Your task to perform on an android device: Open calendar and show me the third week of next month Image 0: 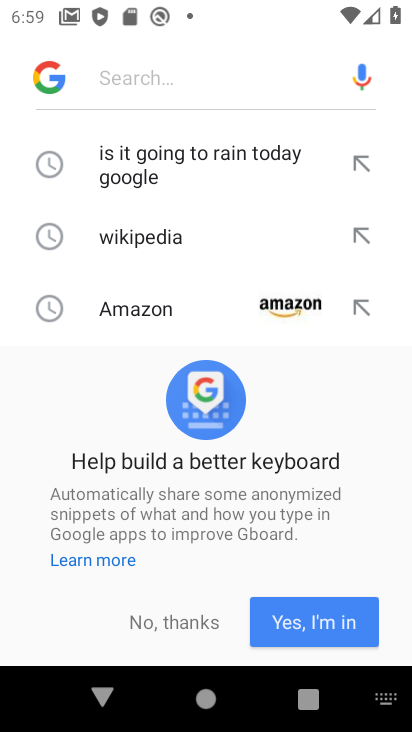
Step 0: press home button
Your task to perform on an android device: Open calendar and show me the third week of next month Image 1: 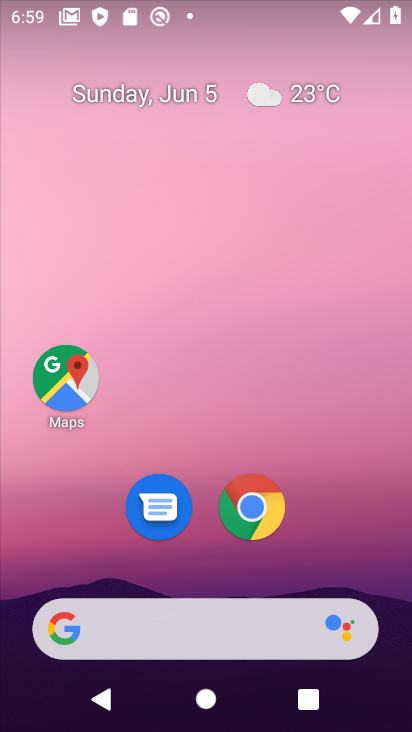
Step 1: drag from (216, 624) to (192, 3)
Your task to perform on an android device: Open calendar and show me the third week of next month Image 2: 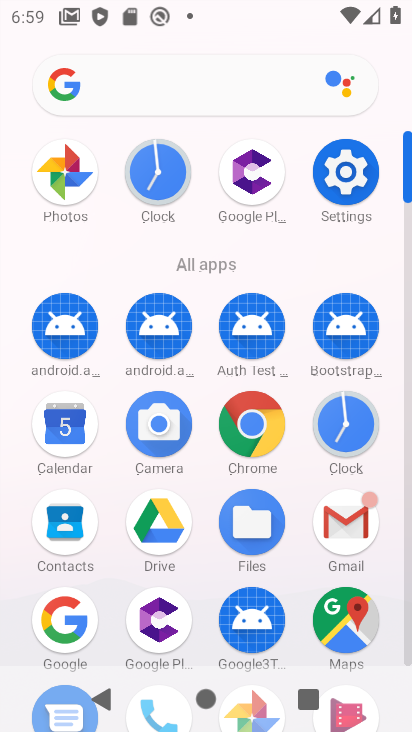
Step 2: click (78, 438)
Your task to perform on an android device: Open calendar and show me the third week of next month Image 3: 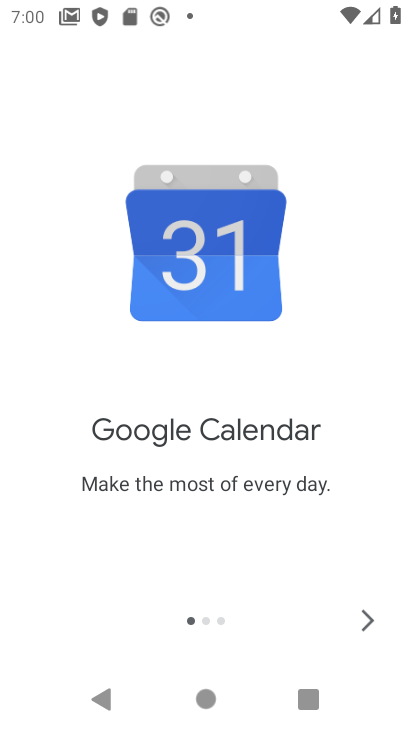
Step 3: click (368, 624)
Your task to perform on an android device: Open calendar and show me the third week of next month Image 4: 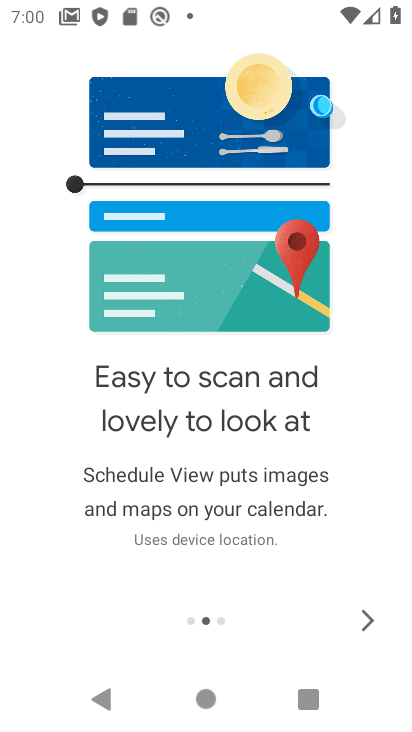
Step 4: click (362, 612)
Your task to perform on an android device: Open calendar and show me the third week of next month Image 5: 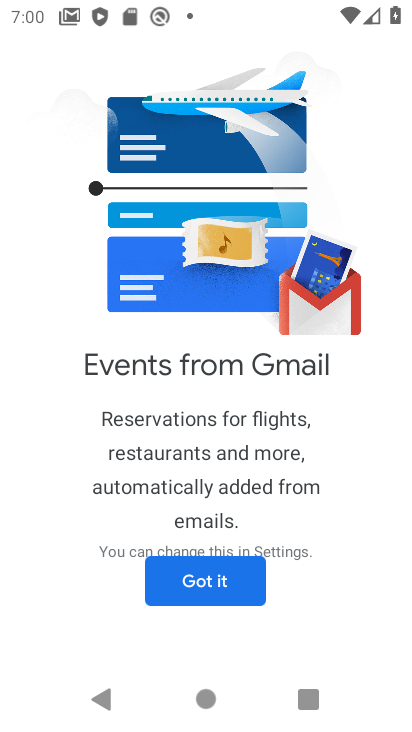
Step 5: click (236, 590)
Your task to perform on an android device: Open calendar and show me the third week of next month Image 6: 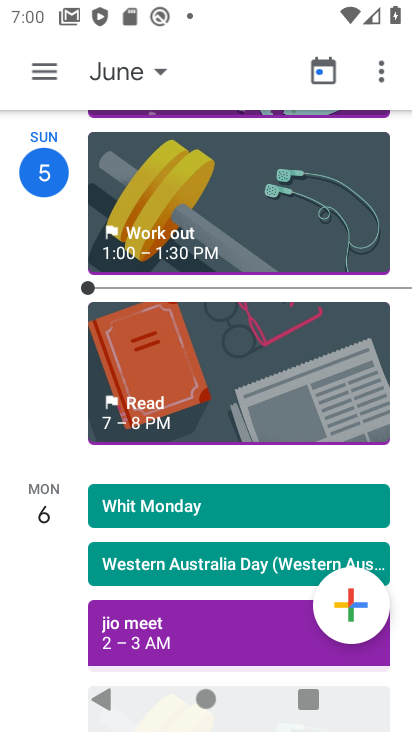
Step 6: click (35, 78)
Your task to perform on an android device: Open calendar and show me the third week of next month Image 7: 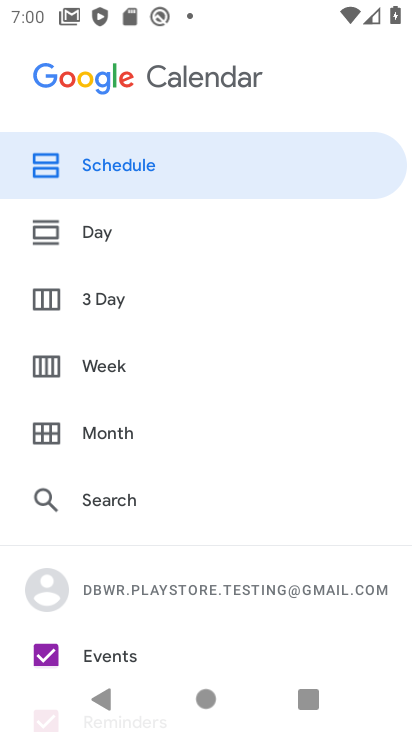
Step 7: drag from (130, 372) to (128, 270)
Your task to perform on an android device: Open calendar and show me the third week of next month Image 8: 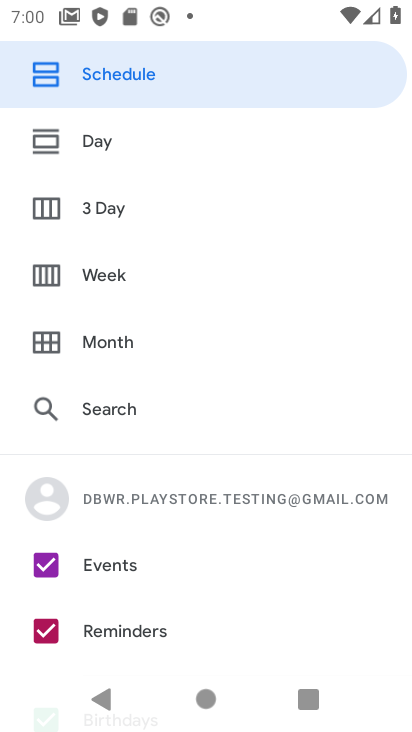
Step 8: click (128, 330)
Your task to perform on an android device: Open calendar and show me the third week of next month Image 9: 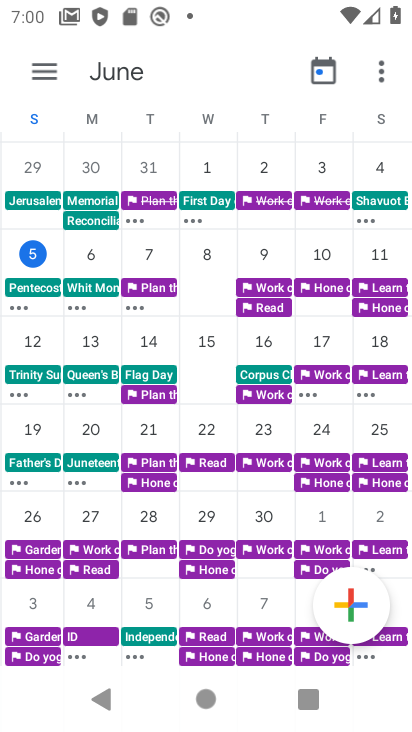
Step 9: drag from (366, 422) to (4, 403)
Your task to perform on an android device: Open calendar and show me the third week of next month Image 10: 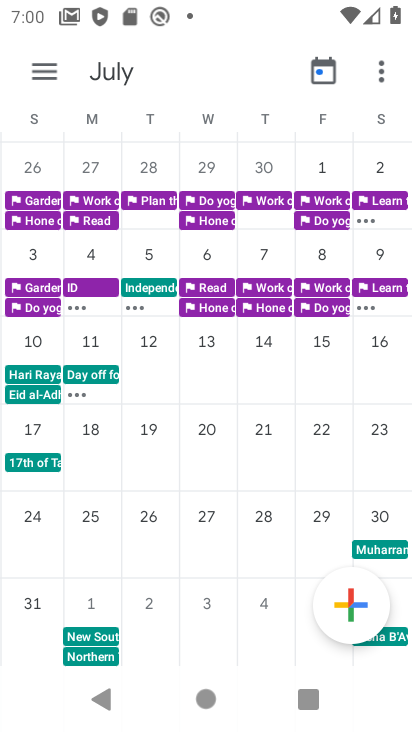
Step 10: click (102, 459)
Your task to perform on an android device: Open calendar and show me the third week of next month Image 11: 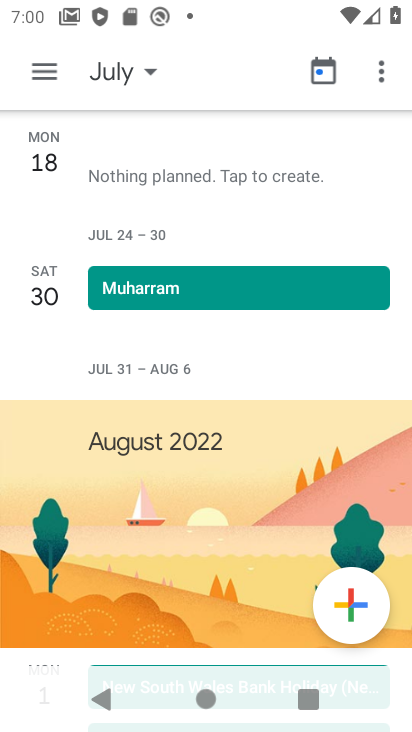
Step 11: task complete